Your task to perform on an android device: toggle show notifications on the lock screen Image 0: 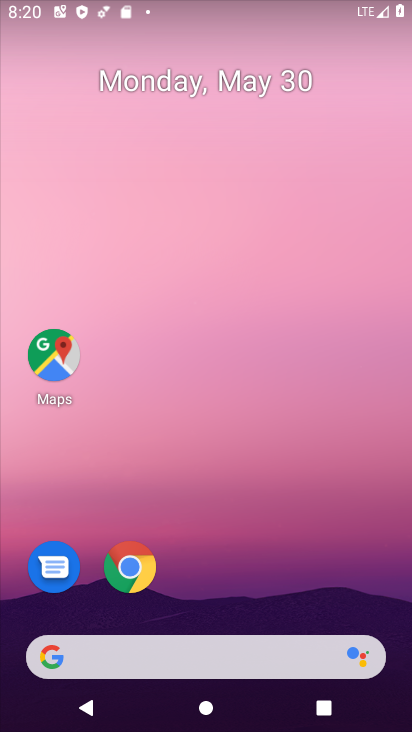
Step 0: drag from (279, 583) to (165, 0)
Your task to perform on an android device: toggle show notifications on the lock screen Image 1: 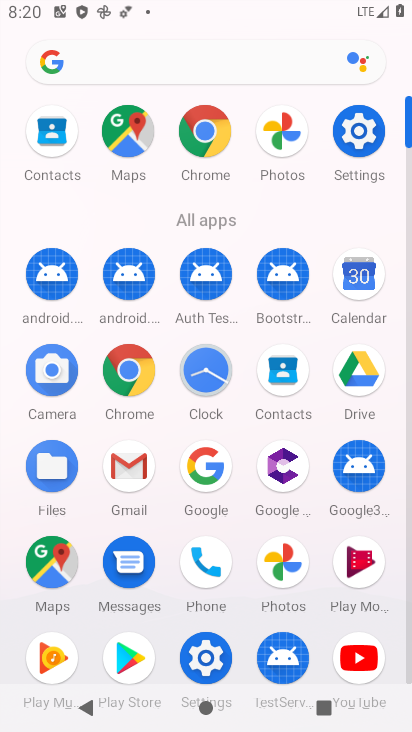
Step 1: click (360, 153)
Your task to perform on an android device: toggle show notifications on the lock screen Image 2: 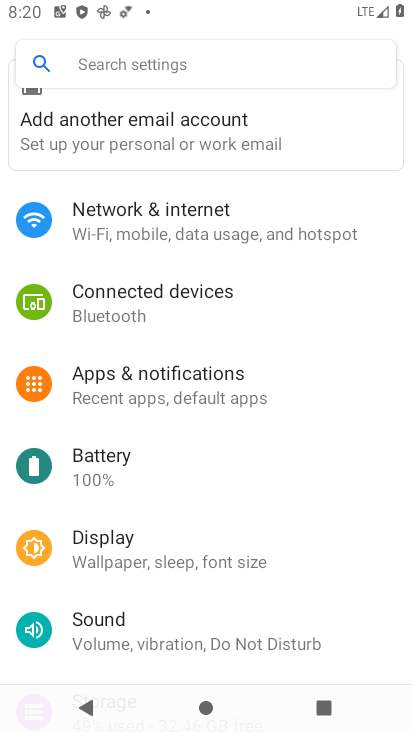
Step 2: drag from (199, 595) to (153, 163)
Your task to perform on an android device: toggle show notifications on the lock screen Image 3: 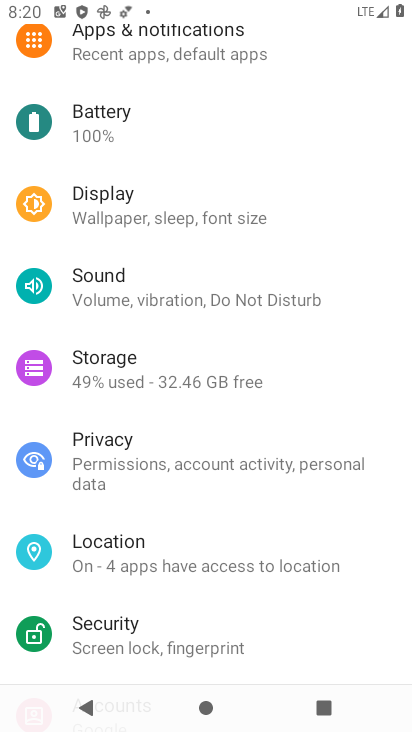
Step 3: click (205, 66)
Your task to perform on an android device: toggle show notifications on the lock screen Image 4: 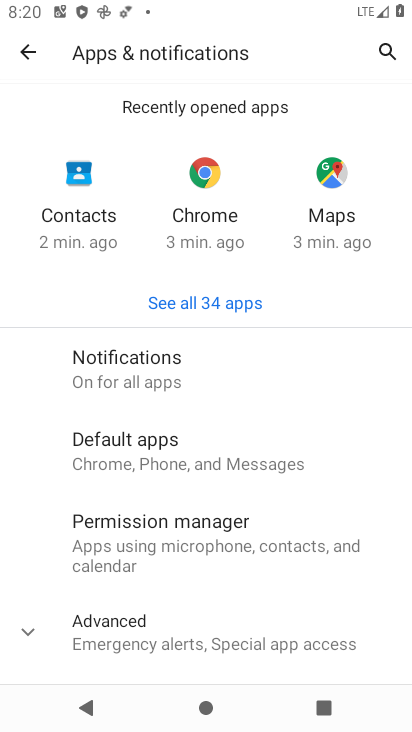
Step 4: click (172, 375)
Your task to perform on an android device: toggle show notifications on the lock screen Image 5: 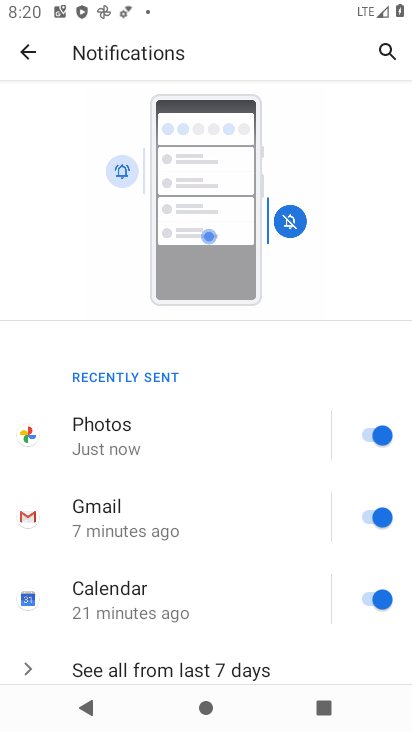
Step 5: drag from (159, 606) to (173, 113)
Your task to perform on an android device: toggle show notifications on the lock screen Image 6: 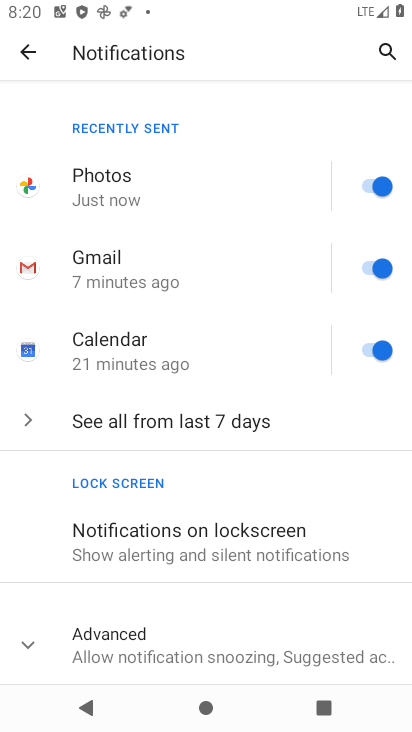
Step 6: click (191, 524)
Your task to perform on an android device: toggle show notifications on the lock screen Image 7: 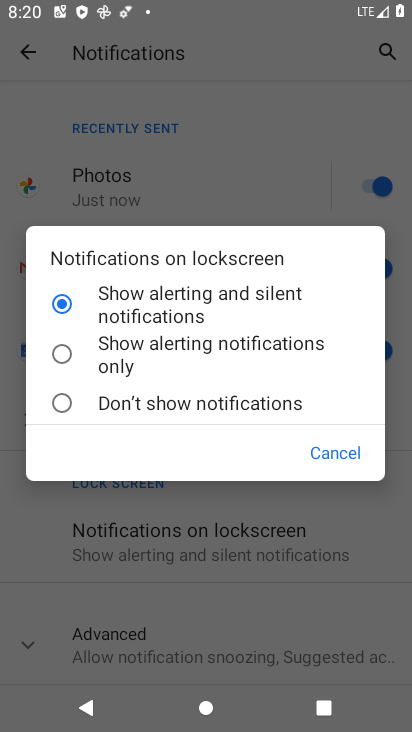
Step 7: click (153, 328)
Your task to perform on an android device: toggle show notifications on the lock screen Image 8: 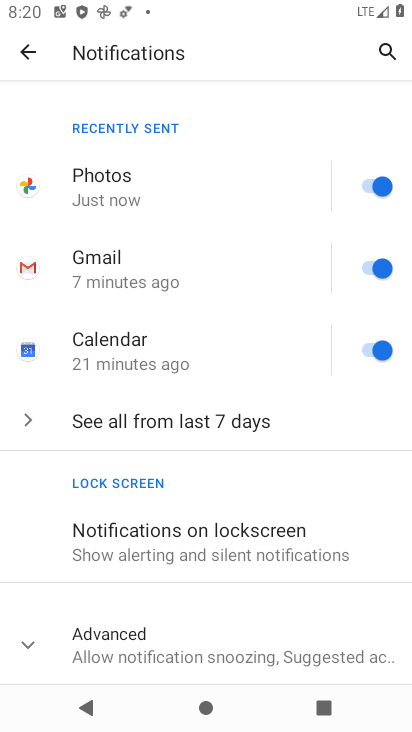
Step 8: task complete